Your task to perform on an android device: open device folders in google photos Image 0: 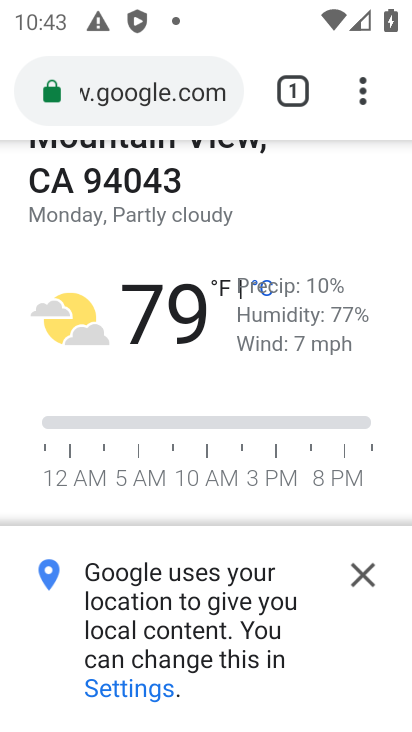
Step 0: drag from (210, 198) to (155, 255)
Your task to perform on an android device: open device folders in google photos Image 1: 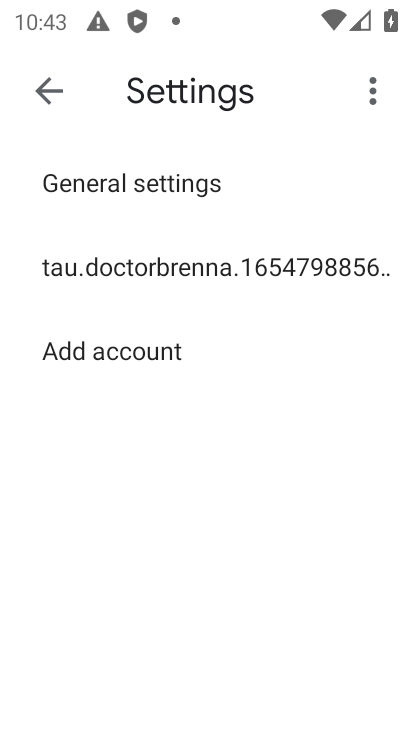
Step 1: click (41, 87)
Your task to perform on an android device: open device folders in google photos Image 2: 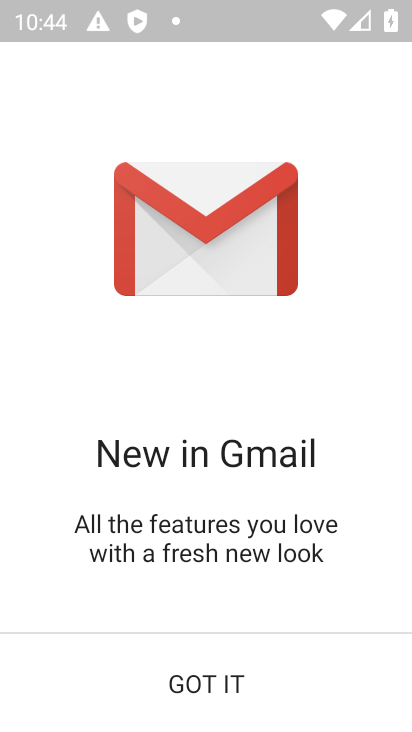
Step 2: click (223, 685)
Your task to perform on an android device: open device folders in google photos Image 3: 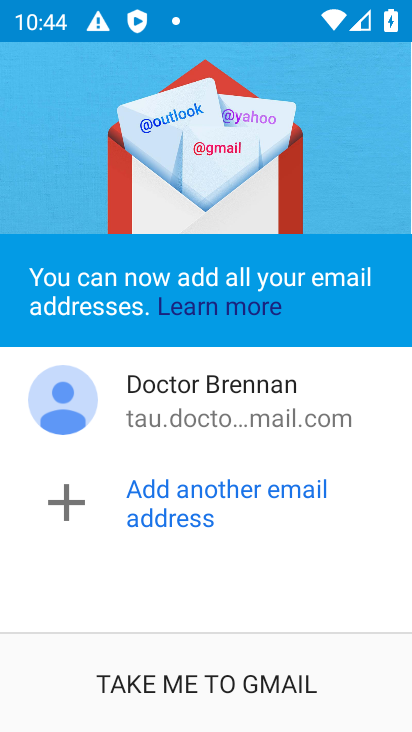
Step 3: press back button
Your task to perform on an android device: open device folders in google photos Image 4: 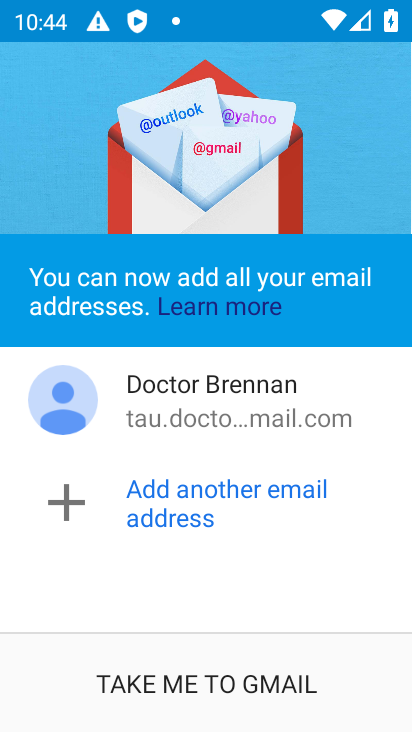
Step 4: press back button
Your task to perform on an android device: open device folders in google photos Image 5: 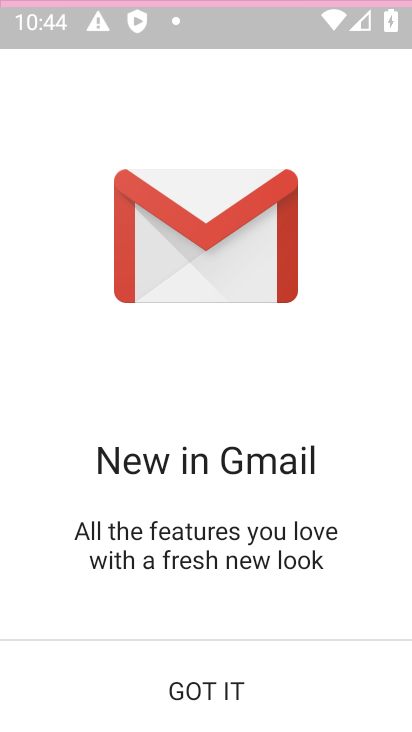
Step 5: press back button
Your task to perform on an android device: open device folders in google photos Image 6: 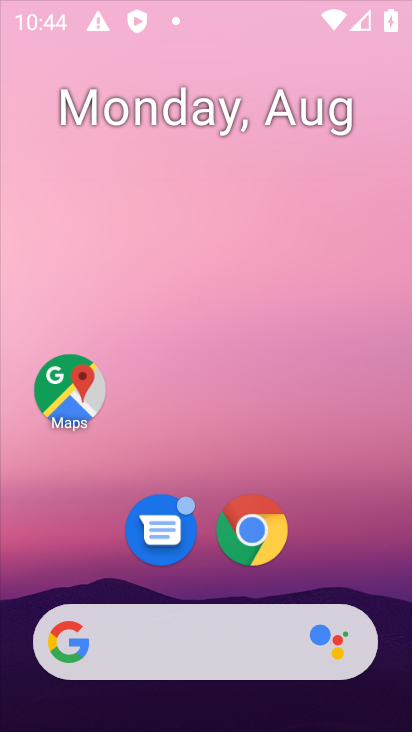
Step 6: press back button
Your task to perform on an android device: open device folders in google photos Image 7: 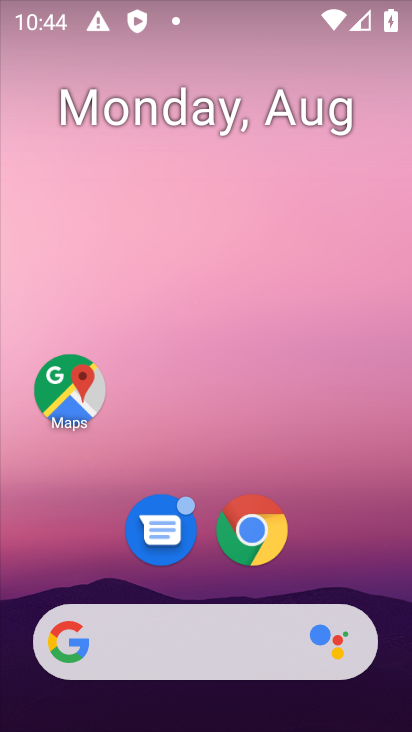
Step 7: press back button
Your task to perform on an android device: open device folders in google photos Image 8: 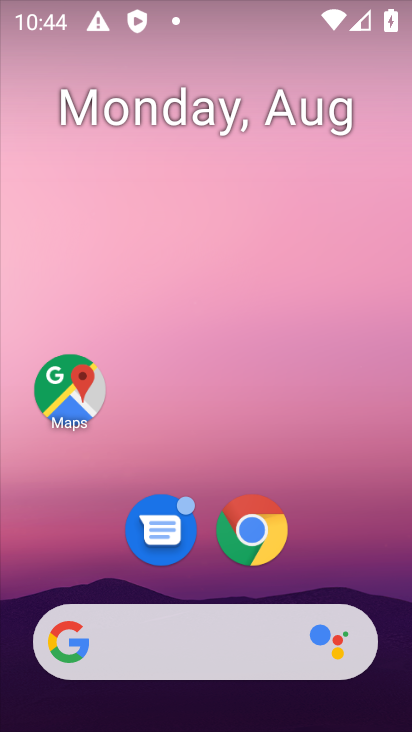
Step 8: press back button
Your task to perform on an android device: open device folders in google photos Image 9: 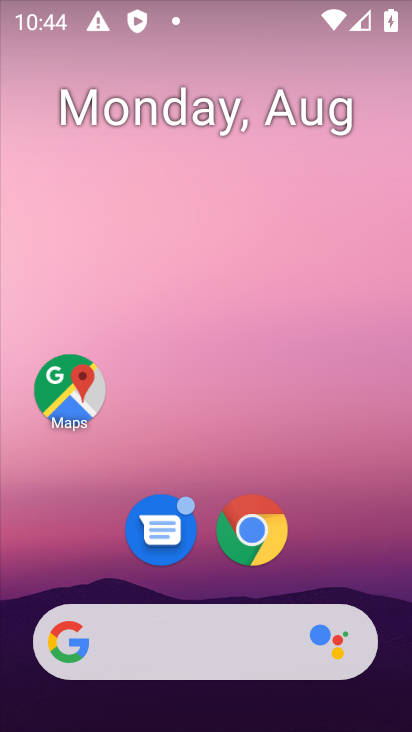
Step 9: drag from (255, 692) to (149, 128)
Your task to perform on an android device: open device folders in google photos Image 10: 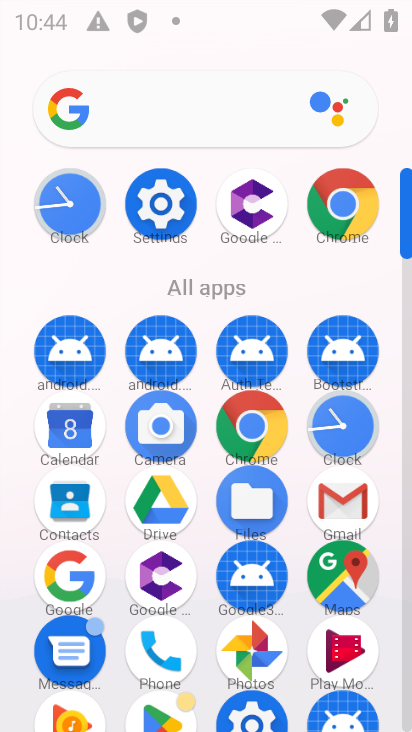
Step 10: drag from (222, 592) to (199, 265)
Your task to perform on an android device: open device folders in google photos Image 11: 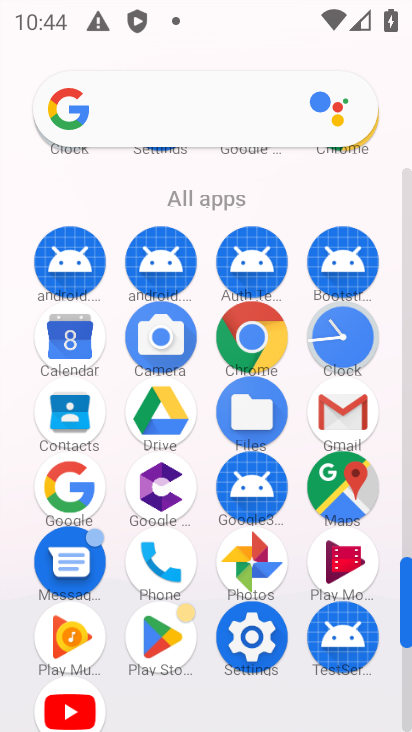
Step 11: click (253, 559)
Your task to perform on an android device: open device folders in google photos Image 12: 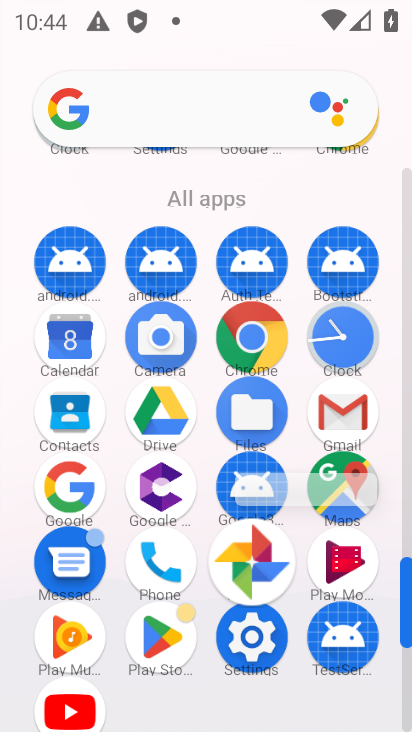
Step 12: click (253, 560)
Your task to perform on an android device: open device folders in google photos Image 13: 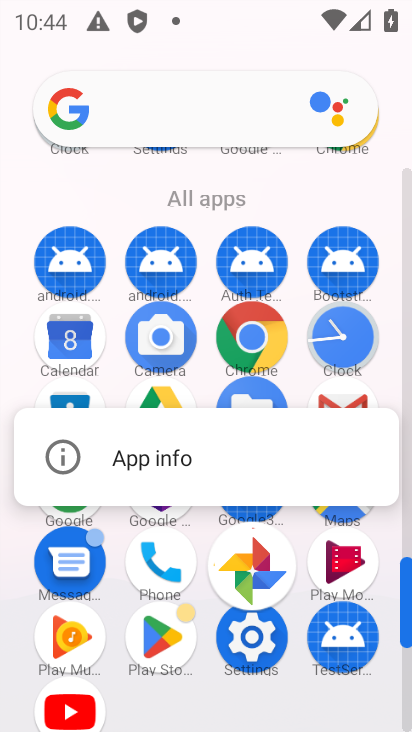
Step 13: click (256, 552)
Your task to perform on an android device: open device folders in google photos Image 14: 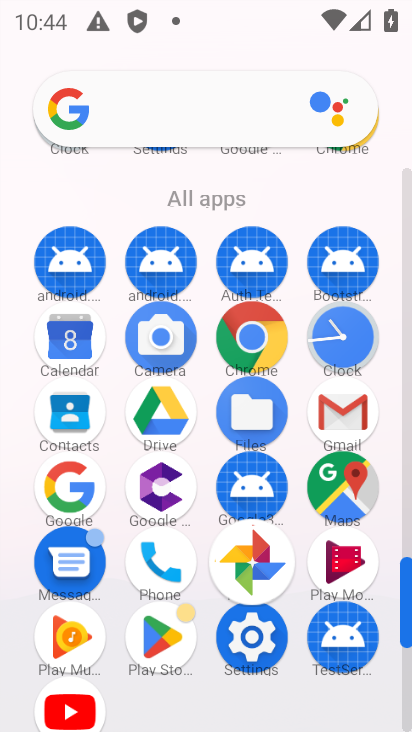
Step 14: click (254, 556)
Your task to perform on an android device: open device folders in google photos Image 15: 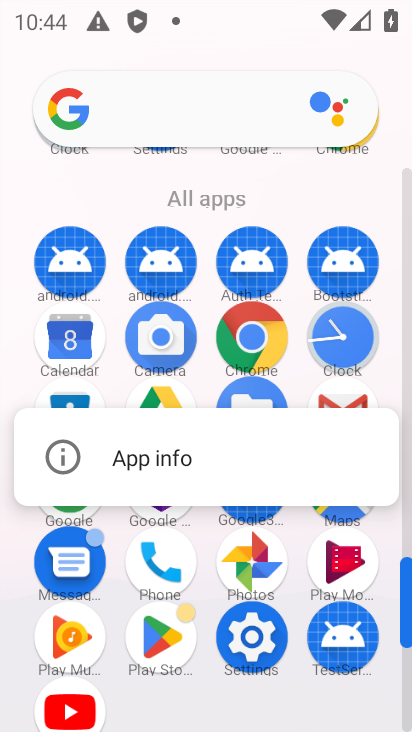
Step 15: click (253, 555)
Your task to perform on an android device: open device folders in google photos Image 16: 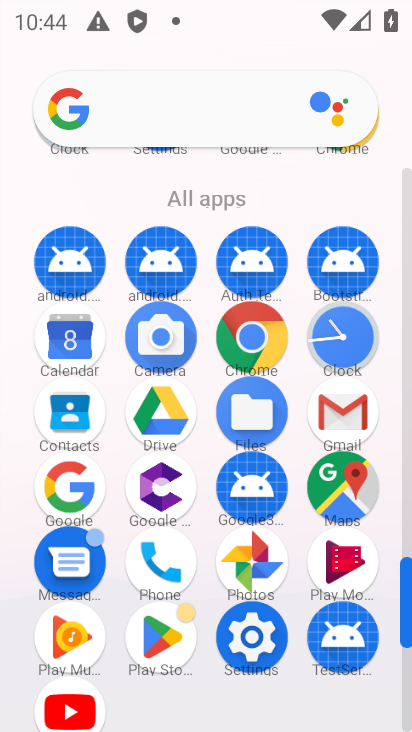
Step 16: click (252, 561)
Your task to perform on an android device: open device folders in google photos Image 17: 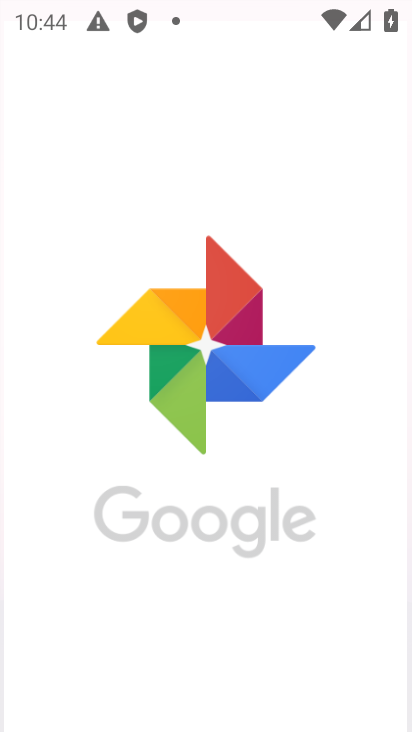
Step 17: click (254, 566)
Your task to perform on an android device: open device folders in google photos Image 18: 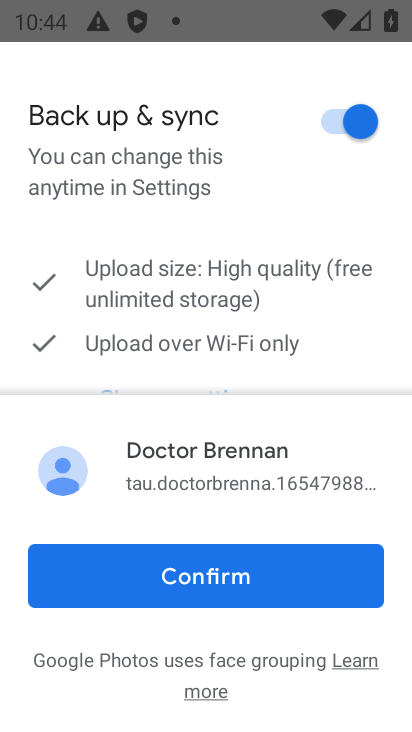
Step 18: click (211, 577)
Your task to perform on an android device: open device folders in google photos Image 19: 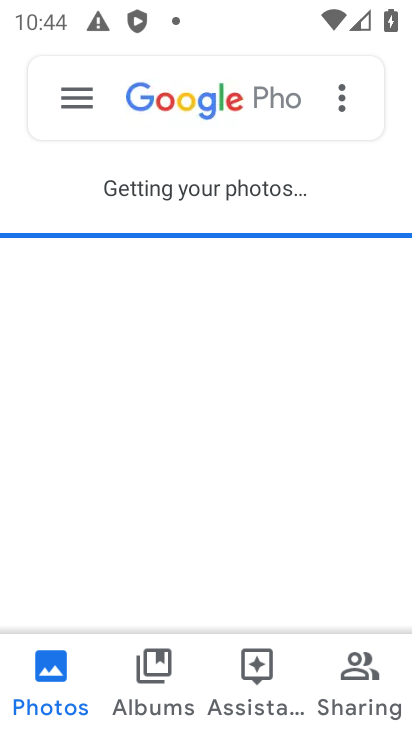
Step 19: click (78, 84)
Your task to perform on an android device: open device folders in google photos Image 20: 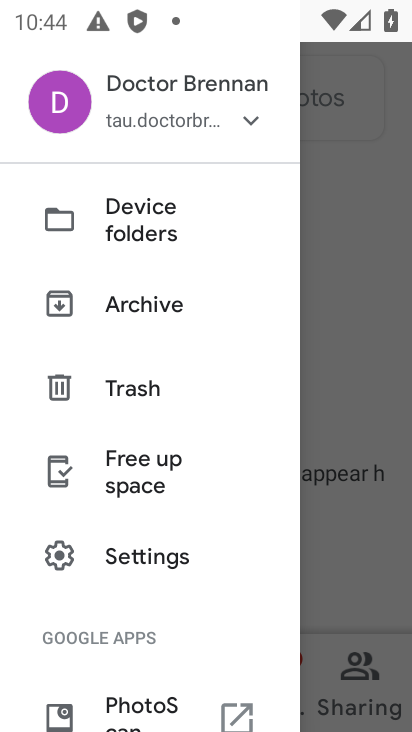
Step 20: click (137, 232)
Your task to perform on an android device: open device folders in google photos Image 21: 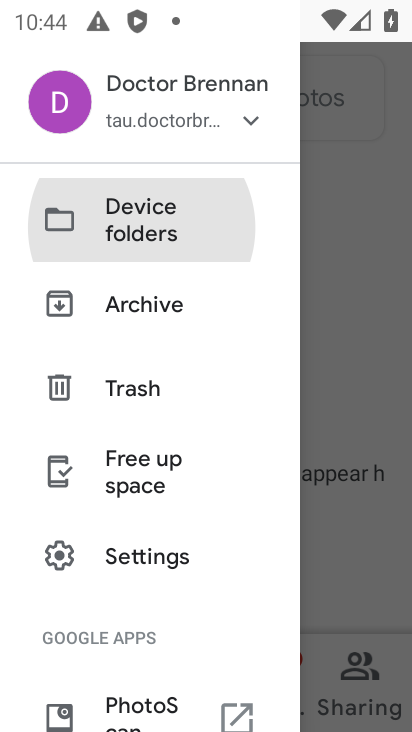
Step 21: click (137, 231)
Your task to perform on an android device: open device folders in google photos Image 22: 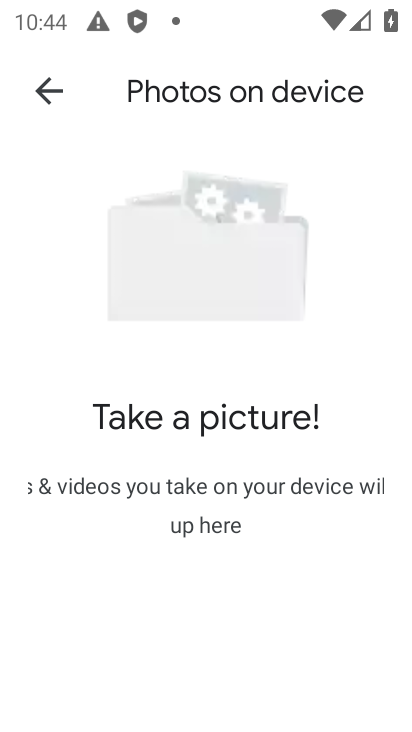
Step 22: task complete